Your task to perform on an android device: Go to Reddit.com Image 0: 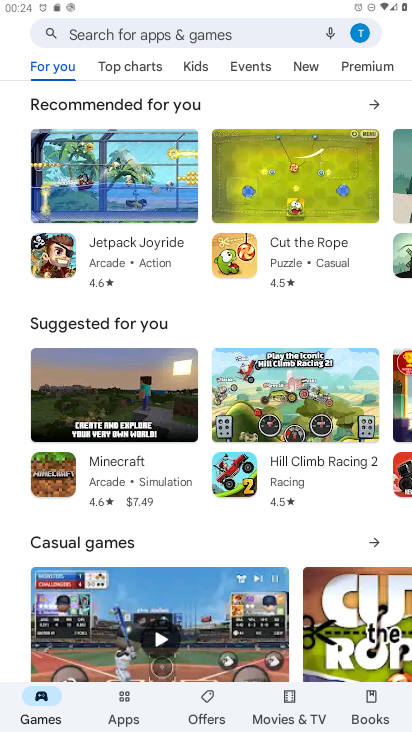
Step 0: press home button
Your task to perform on an android device: Go to Reddit.com Image 1: 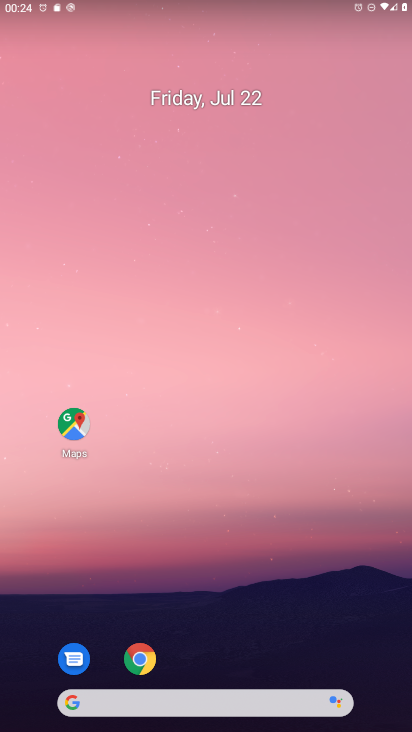
Step 1: click (140, 658)
Your task to perform on an android device: Go to Reddit.com Image 2: 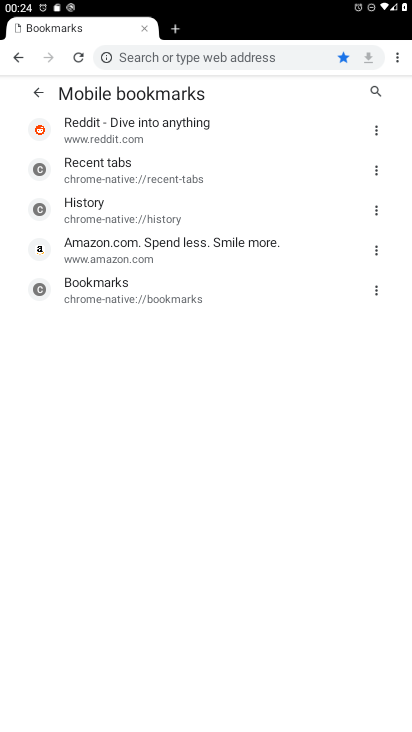
Step 2: click (296, 64)
Your task to perform on an android device: Go to Reddit.com Image 3: 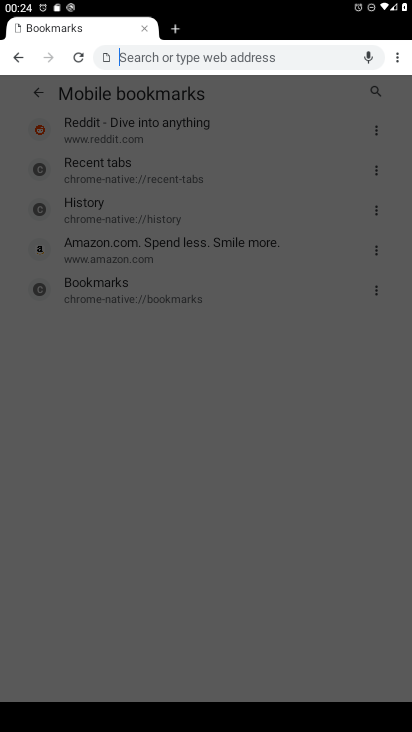
Step 3: type "Reddit.com"
Your task to perform on an android device: Go to Reddit.com Image 4: 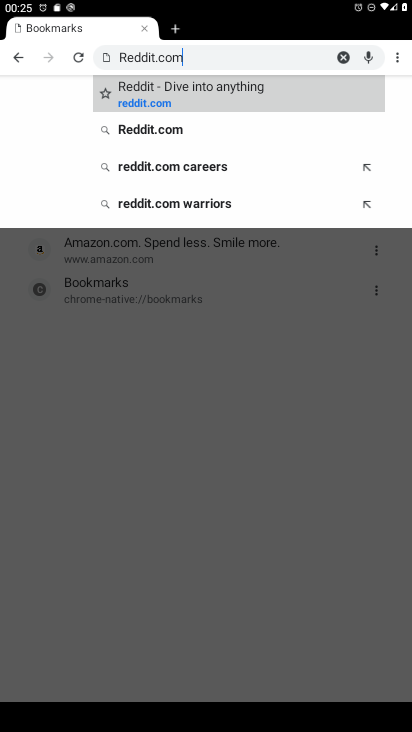
Step 4: click (176, 128)
Your task to perform on an android device: Go to Reddit.com Image 5: 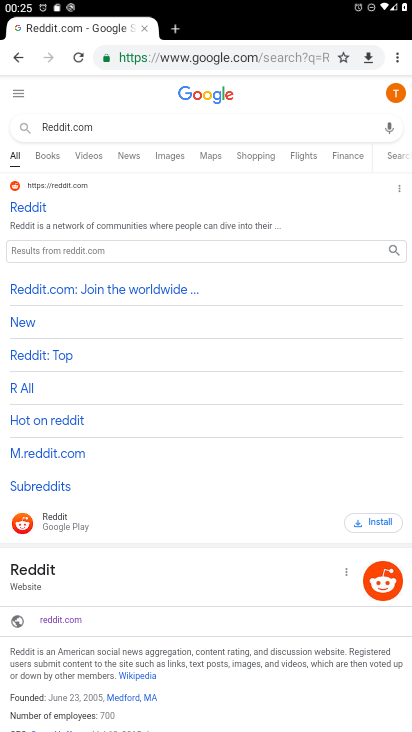
Step 5: click (41, 213)
Your task to perform on an android device: Go to Reddit.com Image 6: 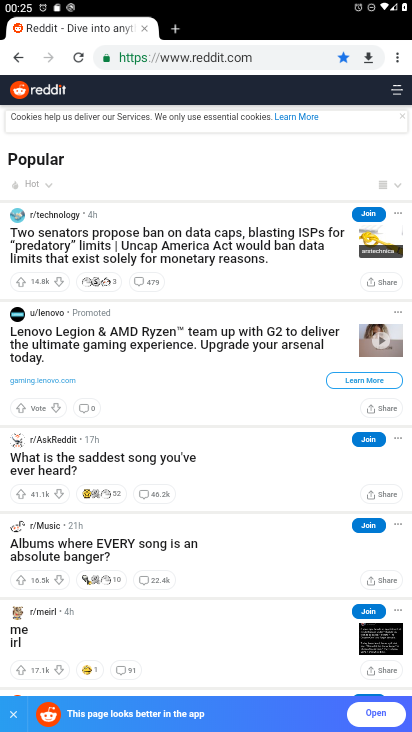
Step 6: task complete